Your task to perform on an android device: change notification settings in the gmail app Image 0: 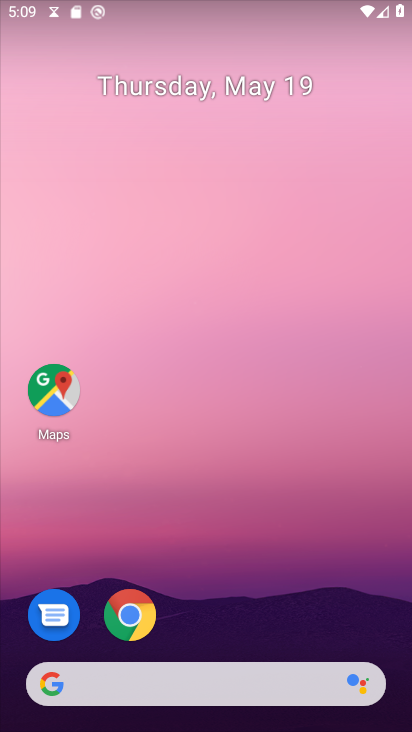
Step 0: drag from (255, 703) to (228, 50)
Your task to perform on an android device: change notification settings in the gmail app Image 1: 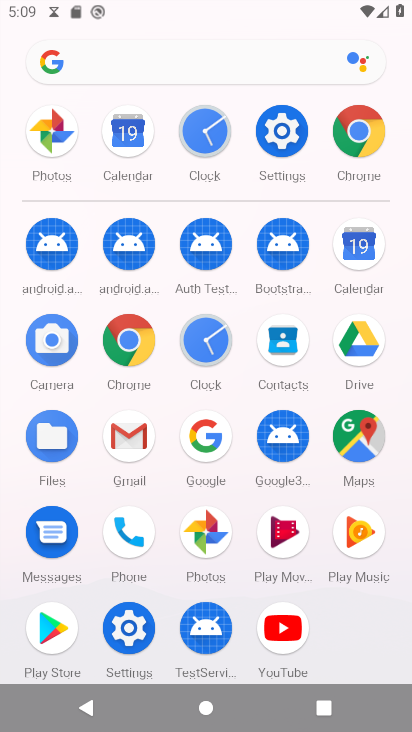
Step 1: click (146, 435)
Your task to perform on an android device: change notification settings in the gmail app Image 2: 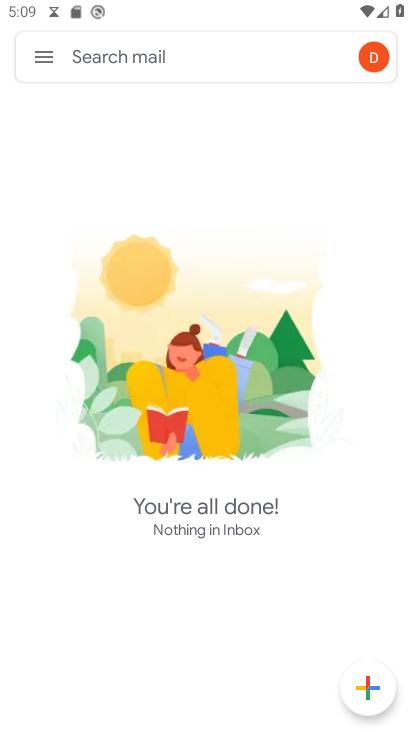
Step 2: click (45, 58)
Your task to perform on an android device: change notification settings in the gmail app Image 3: 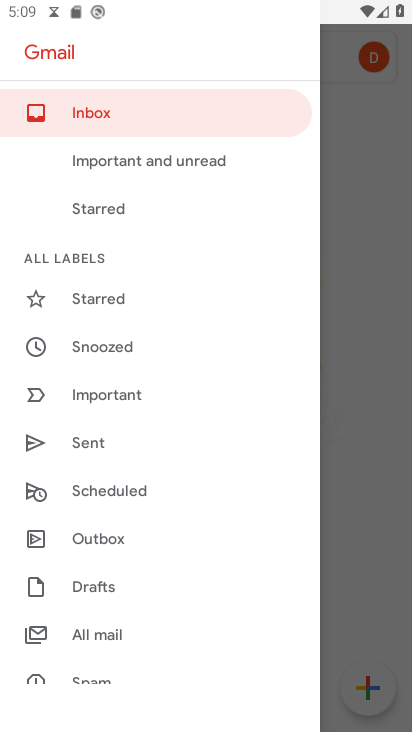
Step 3: drag from (123, 671) to (98, 228)
Your task to perform on an android device: change notification settings in the gmail app Image 4: 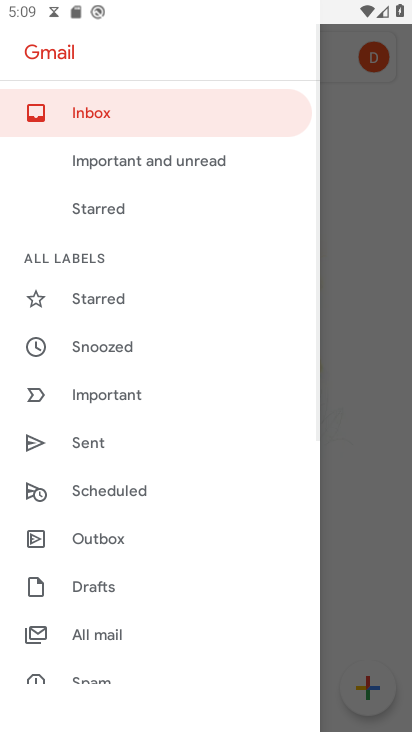
Step 4: drag from (125, 631) to (145, 93)
Your task to perform on an android device: change notification settings in the gmail app Image 5: 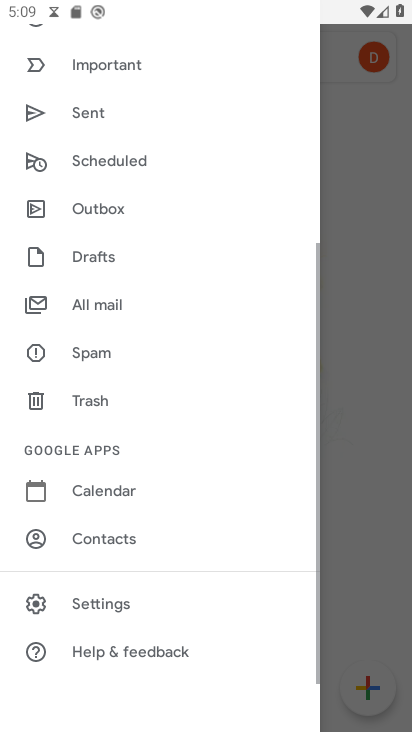
Step 5: click (117, 601)
Your task to perform on an android device: change notification settings in the gmail app Image 6: 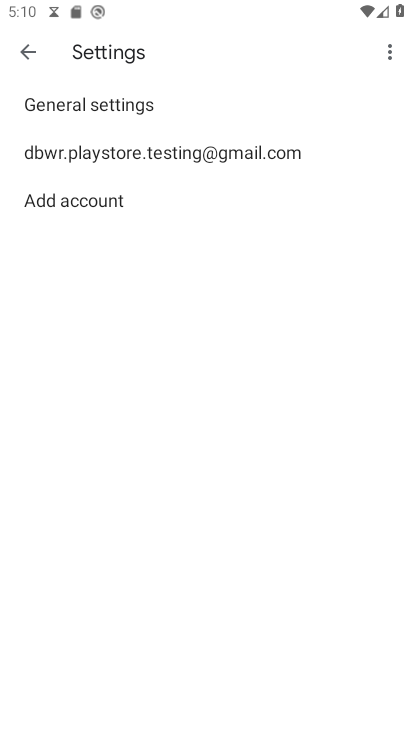
Step 6: click (180, 154)
Your task to perform on an android device: change notification settings in the gmail app Image 7: 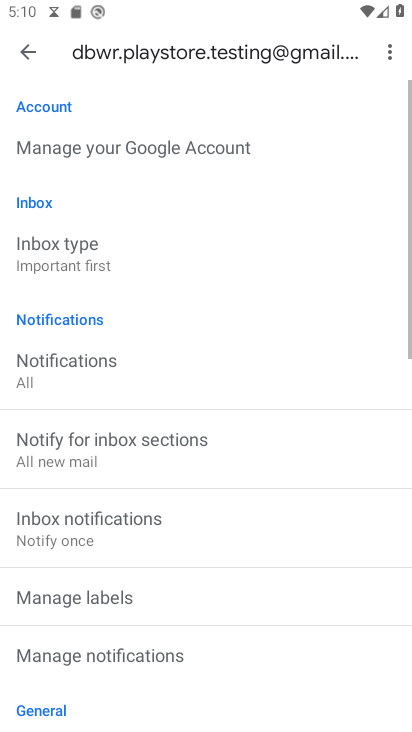
Step 7: drag from (194, 641) to (220, 241)
Your task to perform on an android device: change notification settings in the gmail app Image 8: 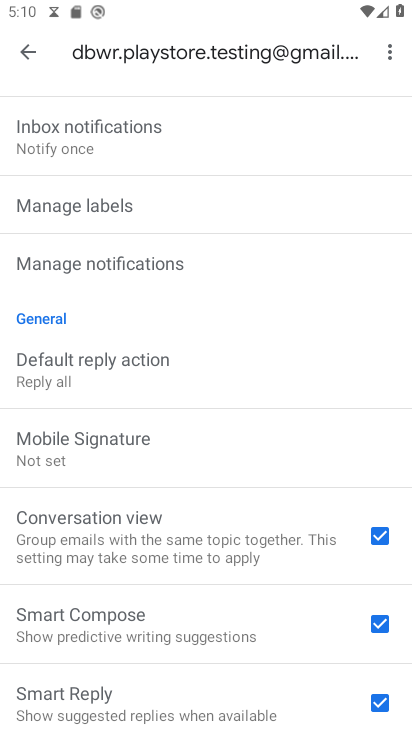
Step 8: click (117, 265)
Your task to perform on an android device: change notification settings in the gmail app Image 9: 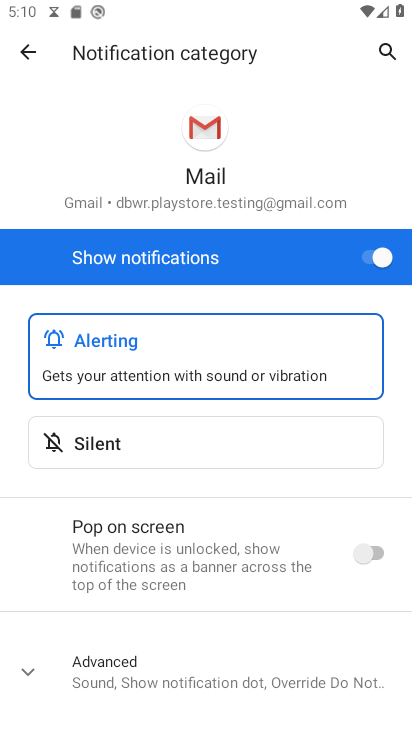
Step 9: click (374, 255)
Your task to perform on an android device: change notification settings in the gmail app Image 10: 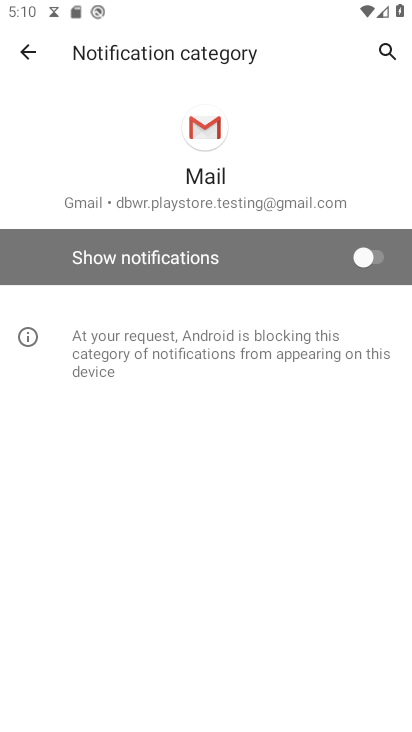
Step 10: task complete